Your task to perform on an android device: Open settings Image 0: 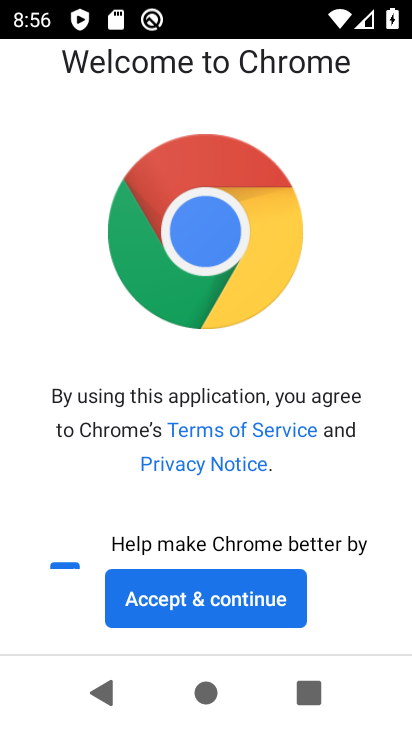
Step 0: press home button
Your task to perform on an android device: Open settings Image 1: 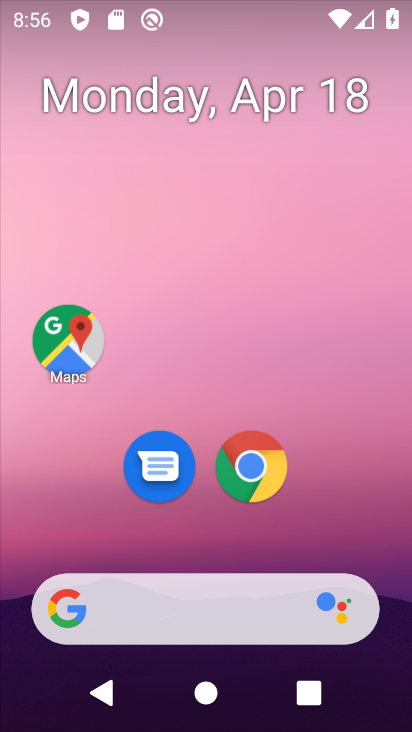
Step 1: drag from (221, 536) to (230, 146)
Your task to perform on an android device: Open settings Image 2: 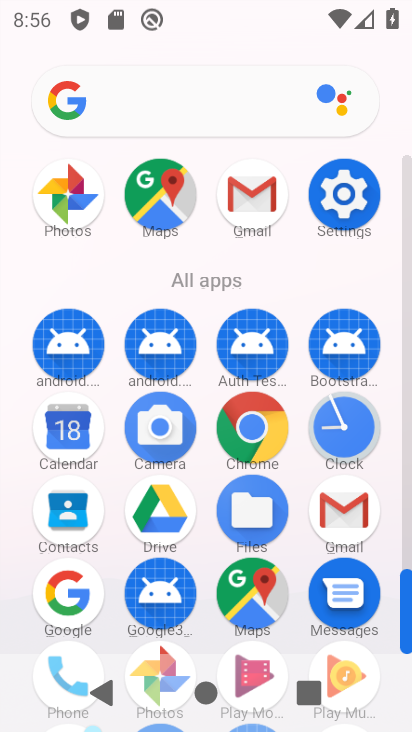
Step 2: click (343, 196)
Your task to perform on an android device: Open settings Image 3: 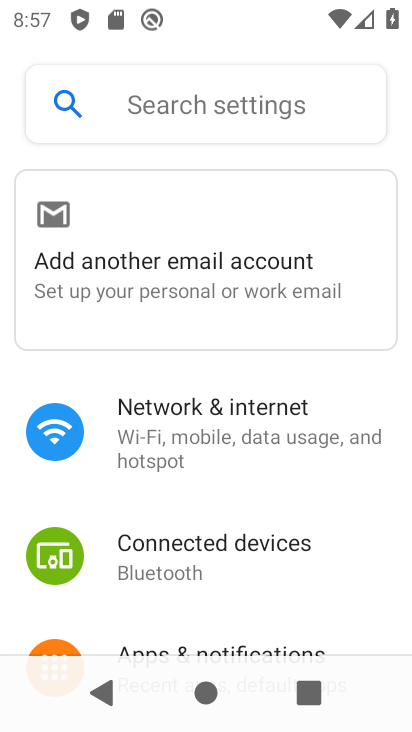
Step 3: task complete